Your task to perform on an android device: change the clock display to digital Image 0: 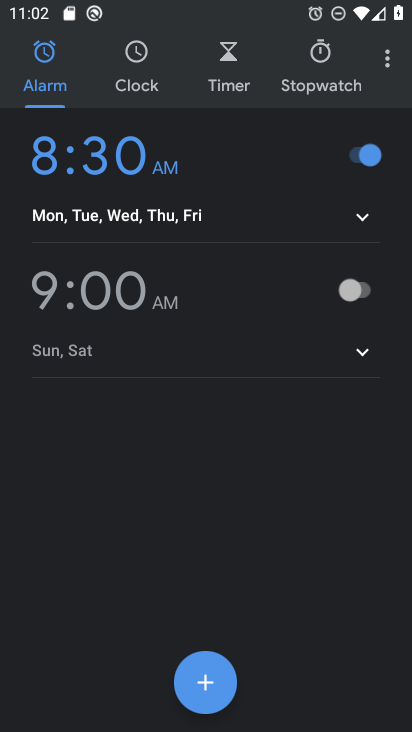
Step 0: click (381, 64)
Your task to perform on an android device: change the clock display to digital Image 1: 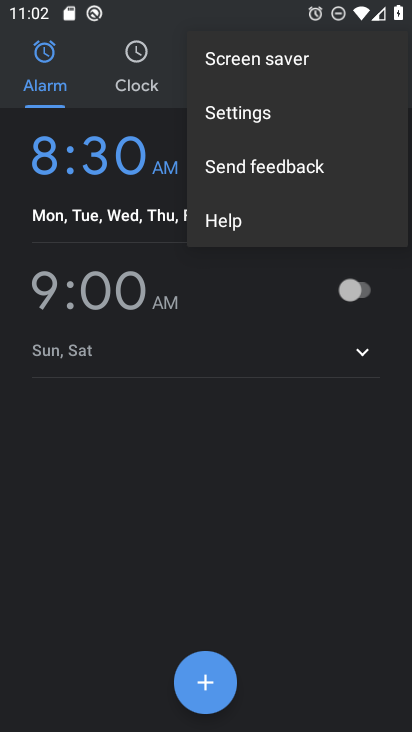
Step 1: click (243, 118)
Your task to perform on an android device: change the clock display to digital Image 2: 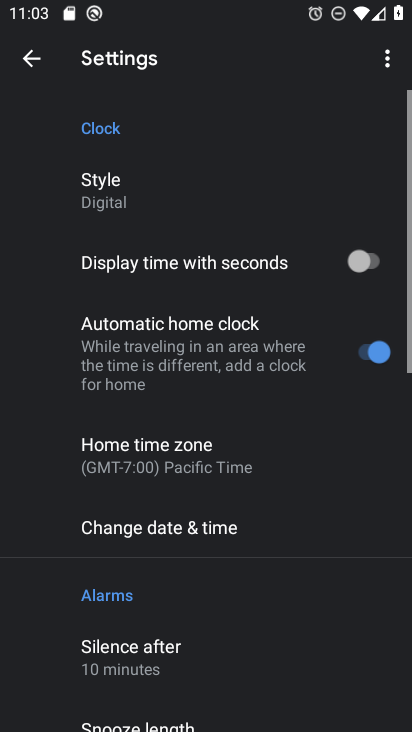
Step 2: click (185, 205)
Your task to perform on an android device: change the clock display to digital Image 3: 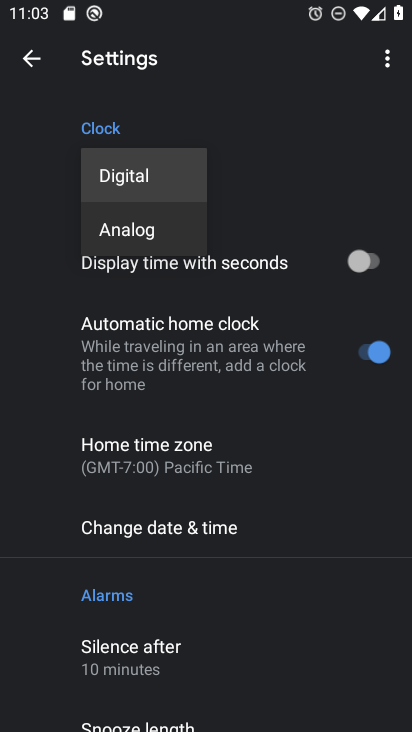
Step 3: task complete